Your task to perform on an android device: manage bookmarks in the chrome app Image 0: 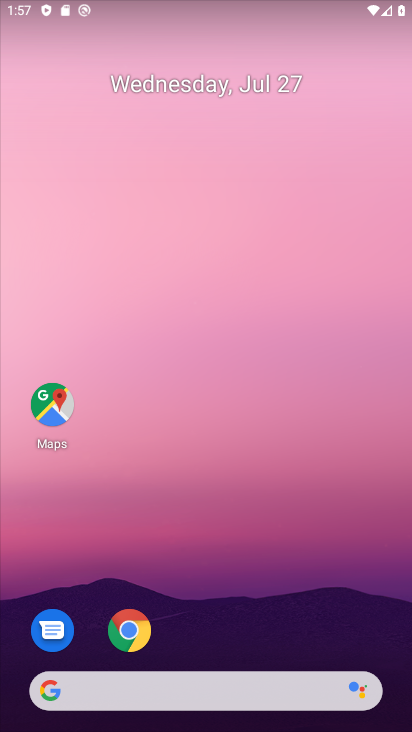
Step 0: click (132, 622)
Your task to perform on an android device: manage bookmarks in the chrome app Image 1: 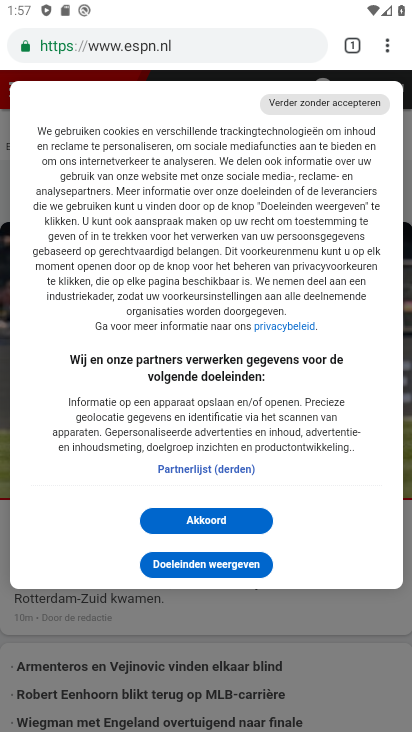
Step 1: click (389, 49)
Your task to perform on an android device: manage bookmarks in the chrome app Image 2: 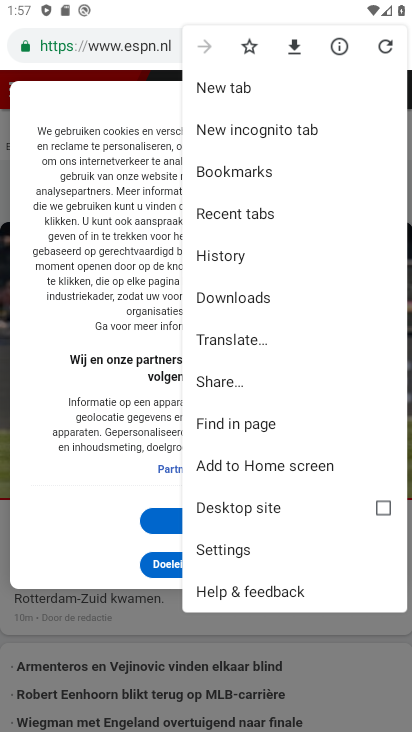
Step 2: click (219, 165)
Your task to perform on an android device: manage bookmarks in the chrome app Image 3: 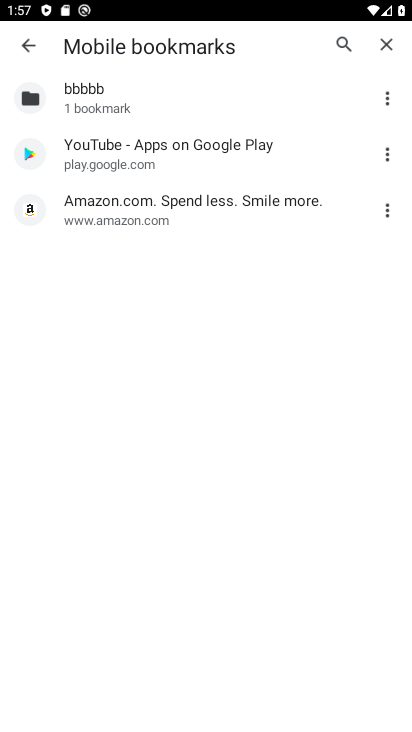
Step 3: click (182, 192)
Your task to perform on an android device: manage bookmarks in the chrome app Image 4: 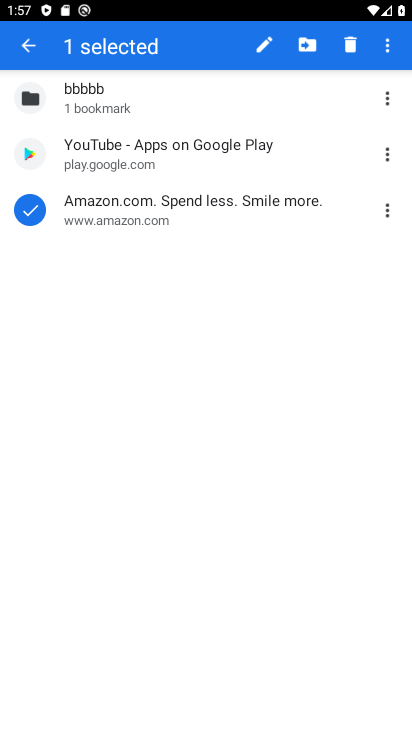
Step 4: click (315, 44)
Your task to perform on an android device: manage bookmarks in the chrome app Image 5: 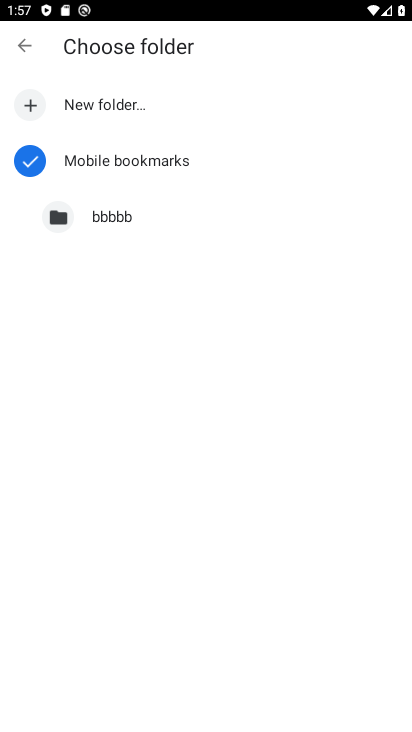
Step 5: click (111, 209)
Your task to perform on an android device: manage bookmarks in the chrome app Image 6: 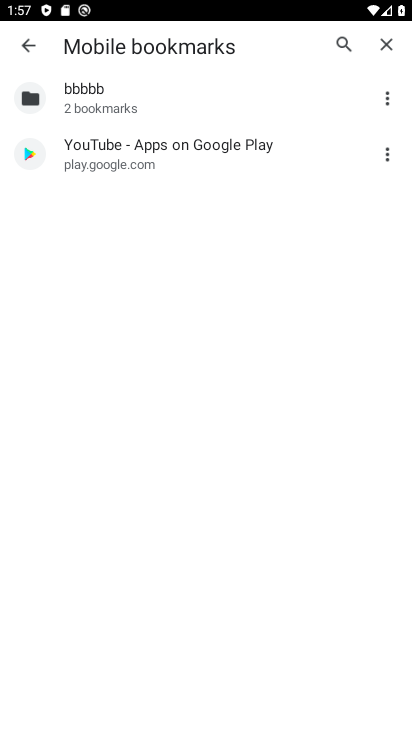
Step 6: click (197, 157)
Your task to perform on an android device: manage bookmarks in the chrome app Image 7: 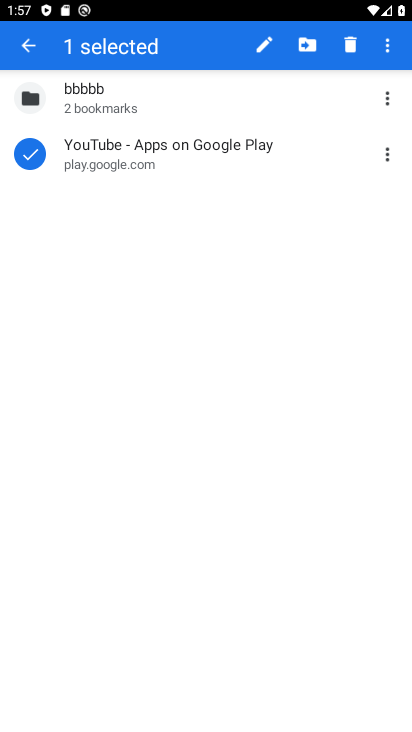
Step 7: click (353, 49)
Your task to perform on an android device: manage bookmarks in the chrome app Image 8: 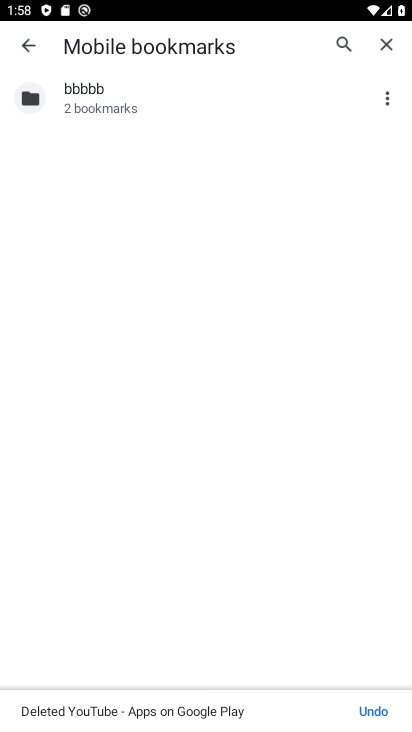
Step 8: task complete